Your task to perform on an android device: Open battery settings Image 0: 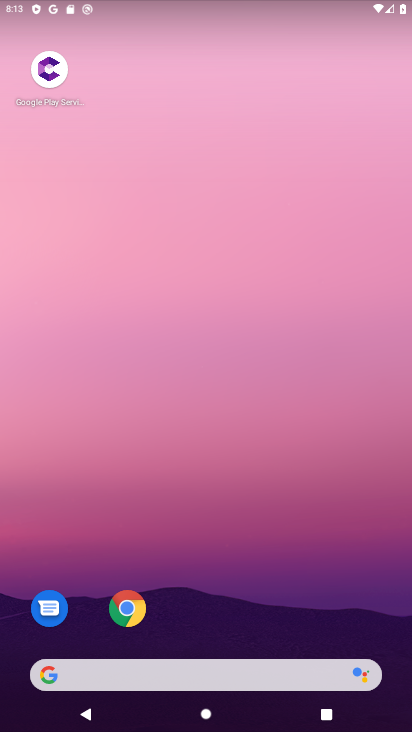
Step 0: drag from (53, 711) to (214, 7)
Your task to perform on an android device: Open battery settings Image 1: 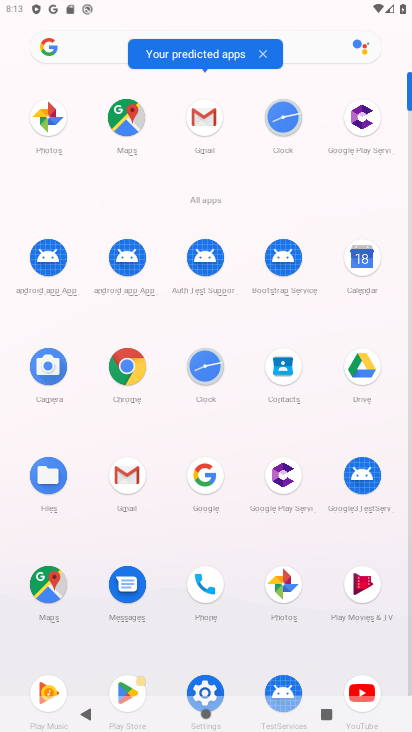
Step 1: drag from (87, 591) to (314, 14)
Your task to perform on an android device: Open battery settings Image 2: 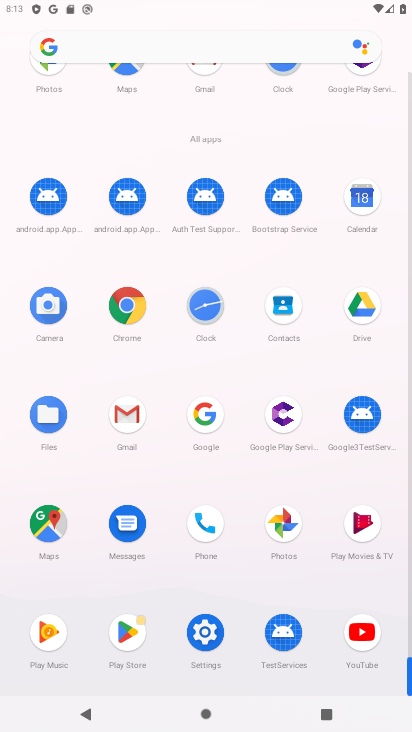
Step 2: click (220, 641)
Your task to perform on an android device: Open battery settings Image 3: 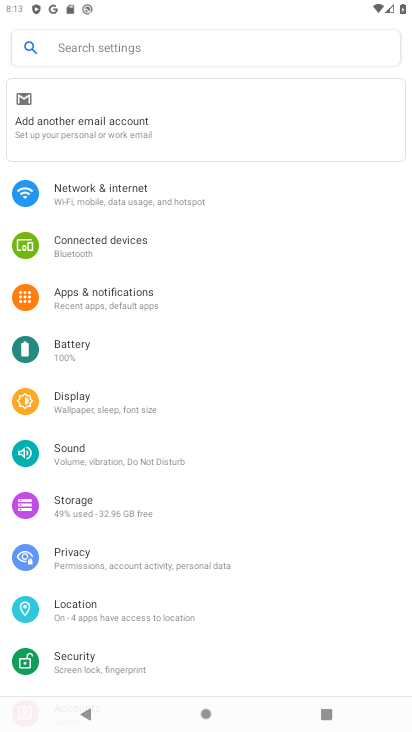
Step 3: click (56, 339)
Your task to perform on an android device: Open battery settings Image 4: 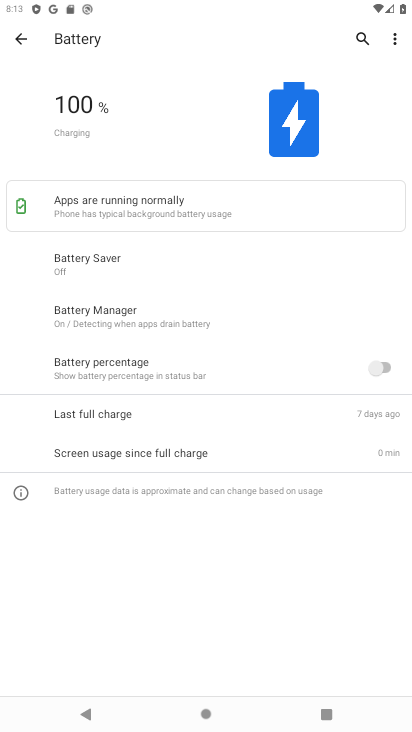
Step 4: task complete